Your task to perform on an android device: Do I have any events tomorrow? Image 0: 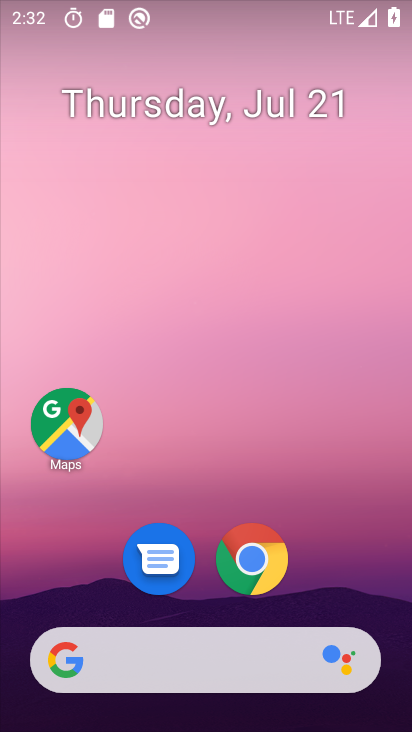
Step 0: drag from (361, 572) to (362, 141)
Your task to perform on an android device: Do I have any events tomorrow? Image 1: 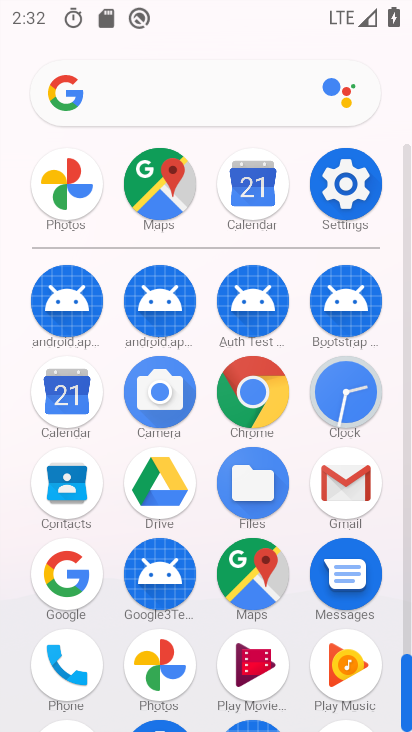
Step 1: click (64, 397)
Your task to perform on an android device: Do I have any events tomorrow? Image 2: 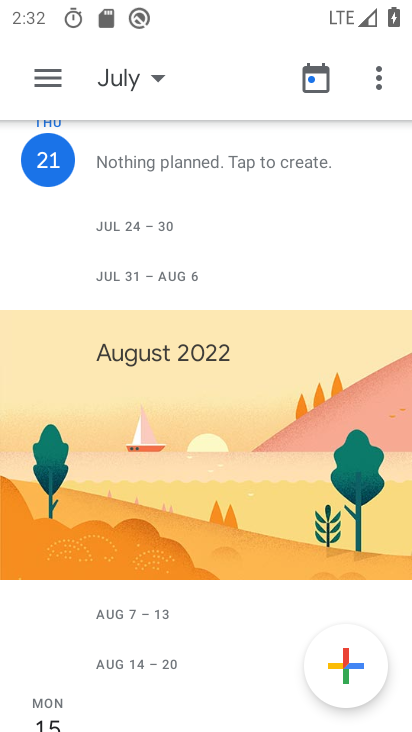
Step 2: click (158, 77)
Your task to perform on an android device: Do I have any events tomorrow? Image 3: 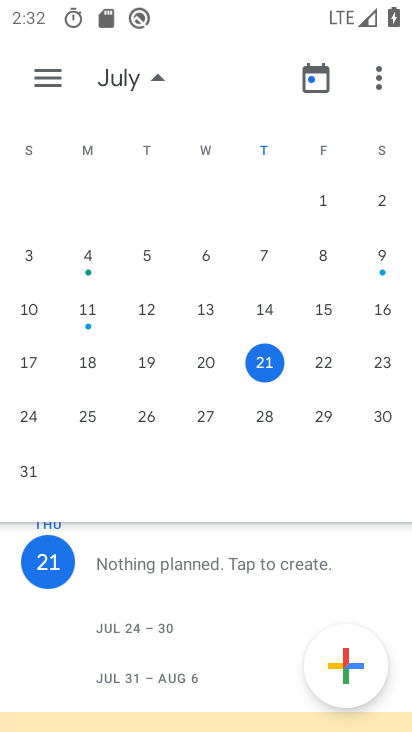
Step 3: click (333, 360)
Your task to perform on an android device: Do I have any events tomorrow? Image 4: 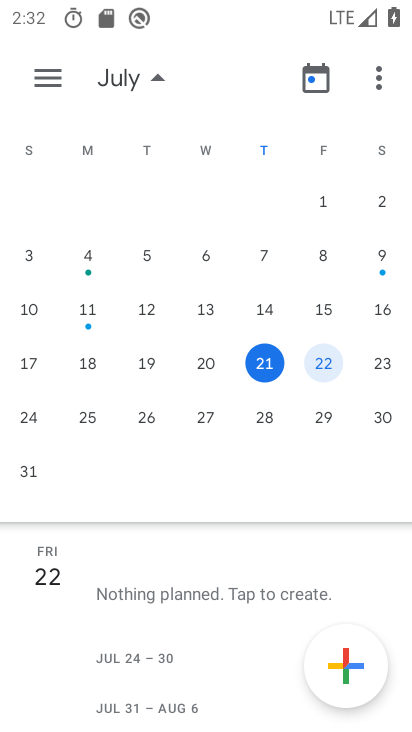
Step 4: task complete